Your task to perform on an android device: open sync settings in chrome Image 0: 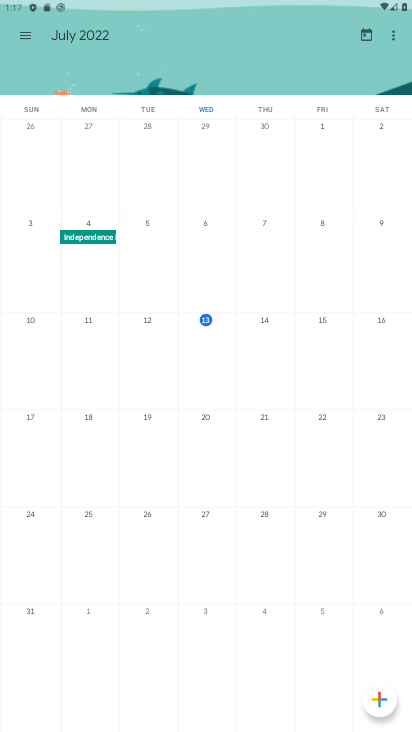
Step 0: press home button
Your task to perform on an android device: open sync settings in chrome Image 1: 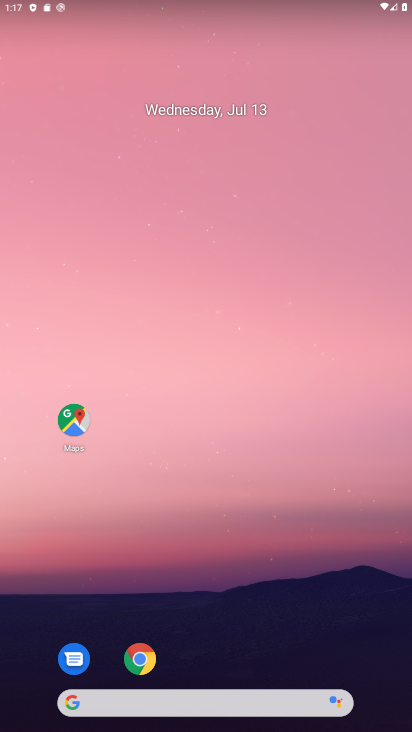
Step 1: click (141, 665)
Your task to perform on an android device: open sync settings in chrome Image 2: 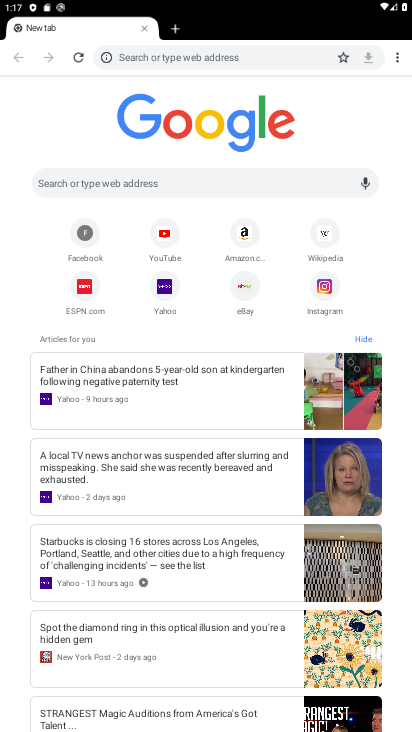
Step 2: click (396, 60)
Your task to perform on an android device: open sync settings in chrome Image 3: 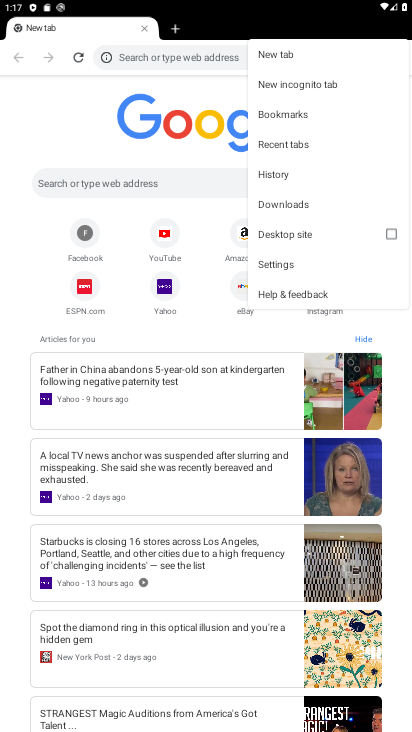
Step 3: click (279, 259)
Your task to perform on an android device: open sync settings in chrome Image 4: 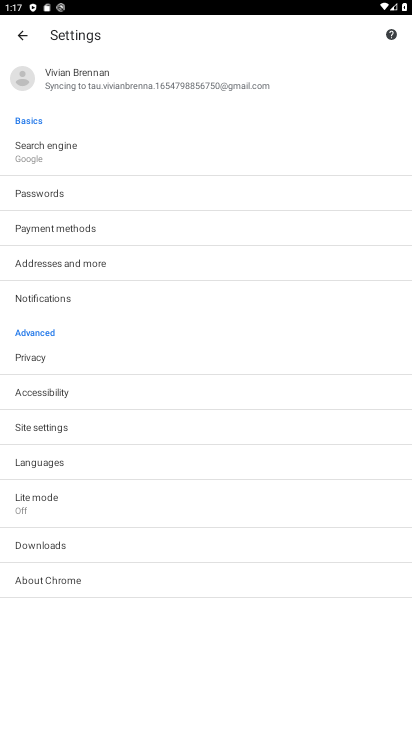
Step 4: click (75, 74)
Your task to perform on an android device: open sync settings in chrome Image 5: 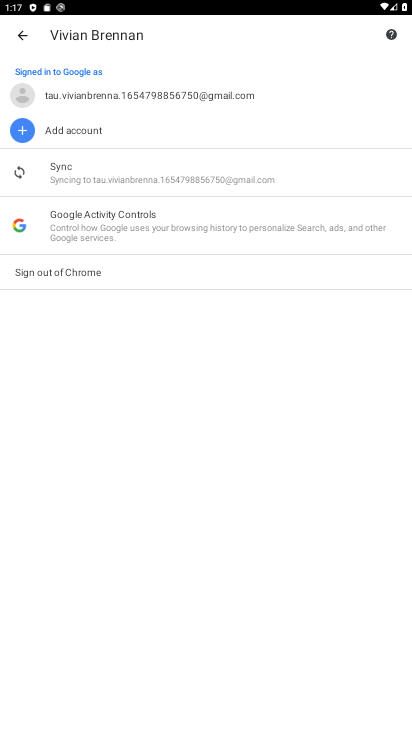
Step 5: click (66, 175)
Your task to perform on an android device: open sync settings in chrome Image 6: 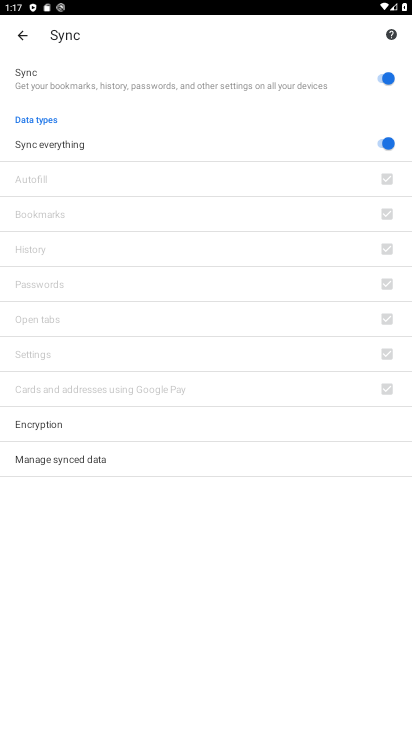
Step 6: task complete